Your task to perform on an android device: Open eBay Image 0: 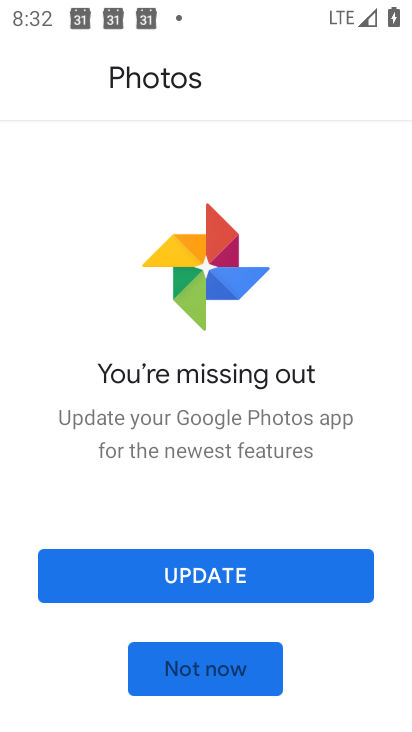
Step 0: press home button
Your task to perform on an android device: Open eBay Image 1: 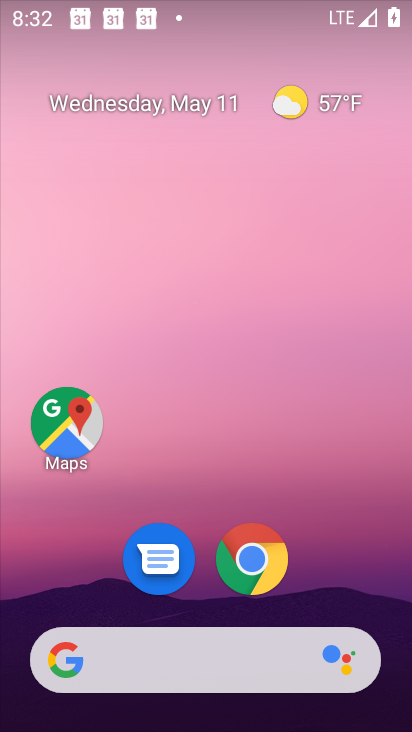
Step 1: drag from (350, 574) to (332, 480)
Your task to perform on an android device: Open eBay Image 2: 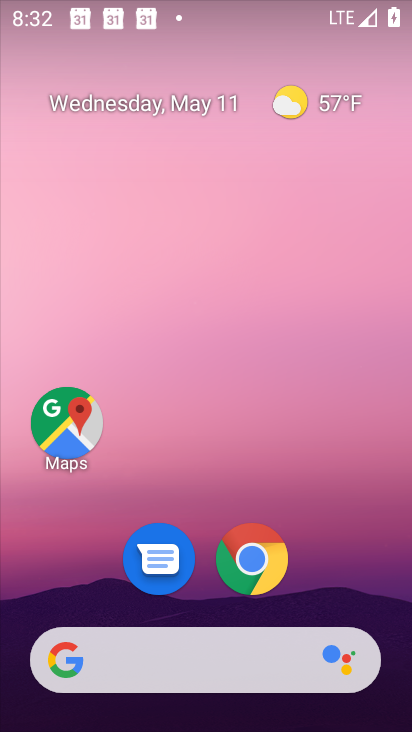
Step 2: click (242, 541)
Your task to perform on an android device: Open eBay Image 3: 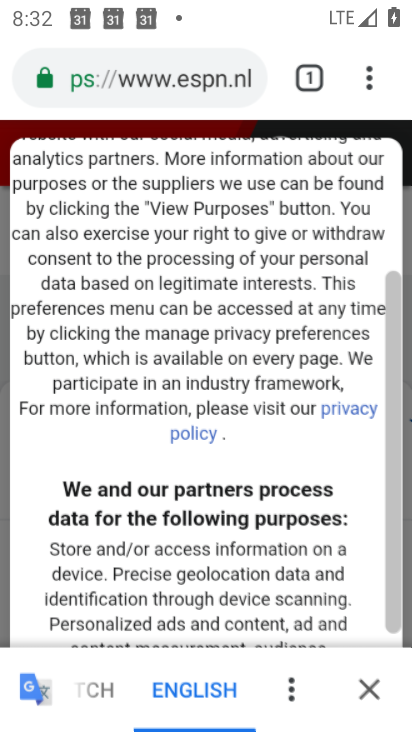
Step 3: click (189, 76)
Your task to perform on an android device: Open eBay Image 4: 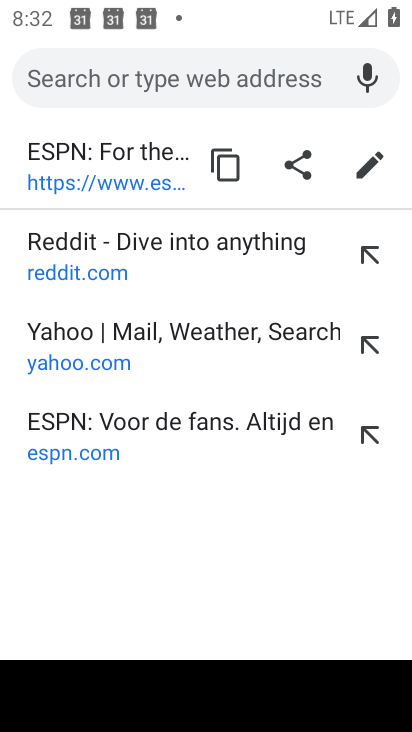
Step 4: click (189, 76)
Your task to perform on an android device: Open eBay Image 5: 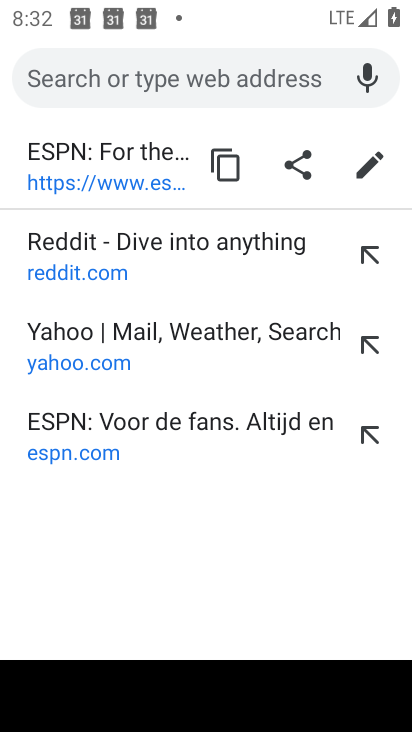
Step 5: type "eBay"
Your task to perform on an android device: Open eBay Image 6: 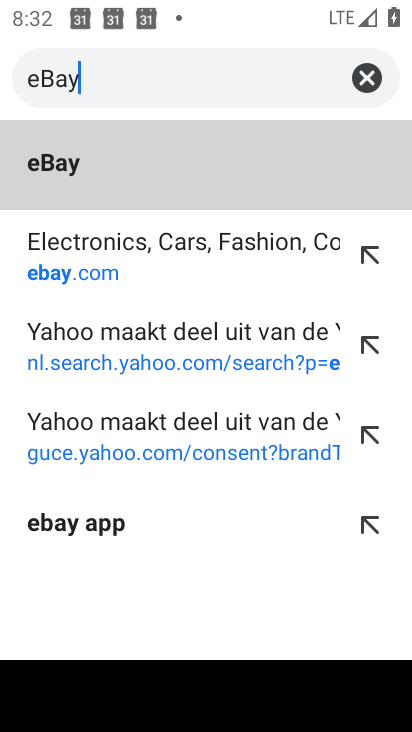
Step 6: click (174, 197)
Your task to perform on an android device: Open eBay Image 7: 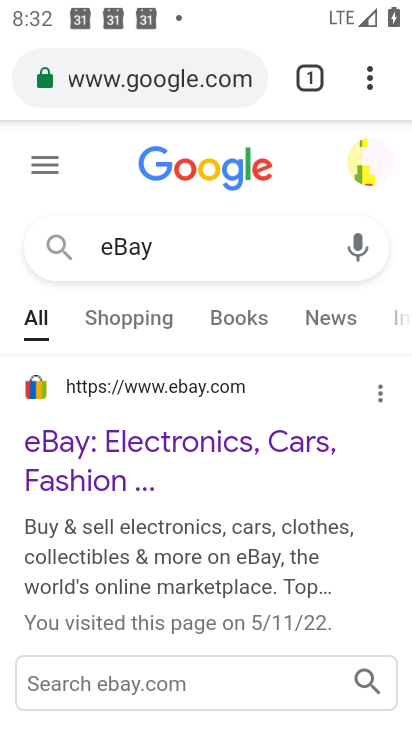
Step 7: click (190, 446)
Your task to perform on an android device: Open eBay Image 8: 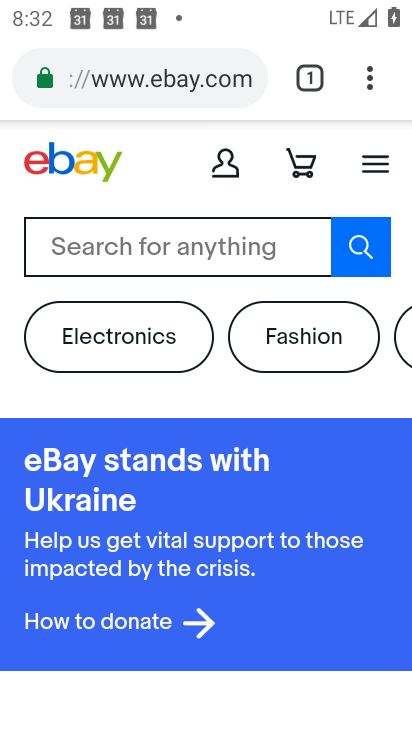
Step 8: task complete